Your task to perform on an android device: find snoozed emails in the gmail app Image 0: 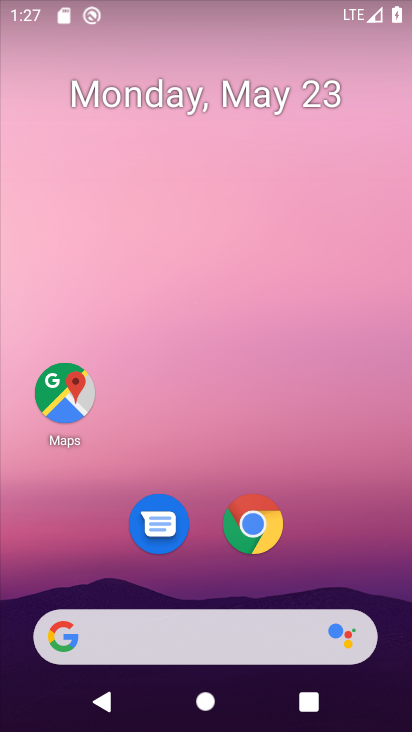
Step 0: drag from (214, 441) to (186, 16)
Your task to perform on an android device: find snoozed emails in the gmail app Image 1: 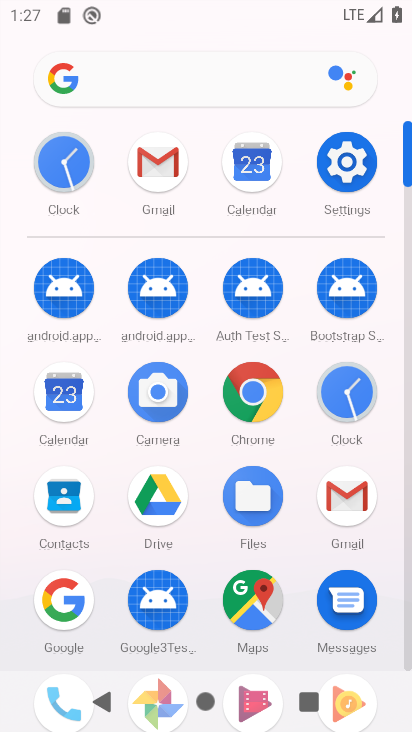
Step 1: click (152, 155)
Your task to perform on an android device: find snoozed emails in the gmail app Image 2: 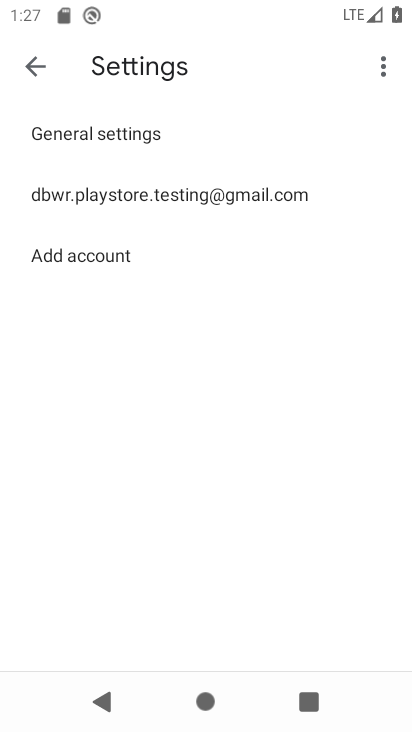
Step 2: click (33, 68)
Your task to perform on an android device: find snoozed emails in the gmail app Image 3: 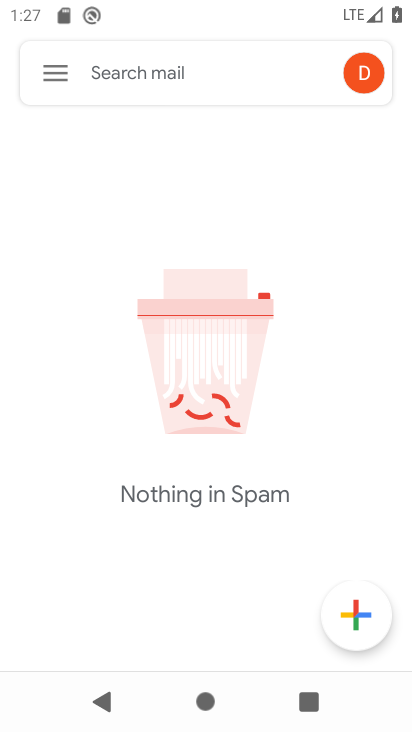
Step 3: click (61, 70)
Your task to perform on an android device: find snoozed emails in the gmail app Image 4: 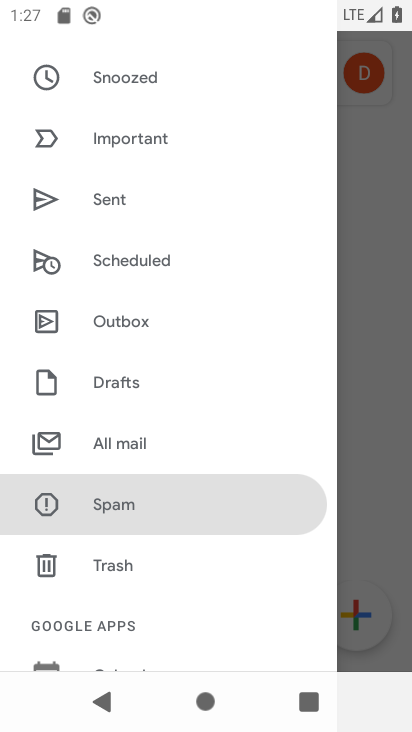
Step 4: click (113, 83)
Your task to perform on an android device: find snoozed emails in the gmail app Image 5: 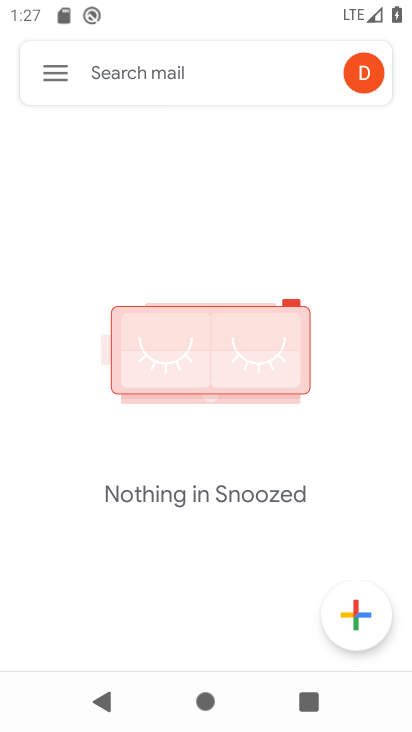
Step 5: task complete